Your task to perform on an android device: Open Chrome and go to the settings page Image 0: 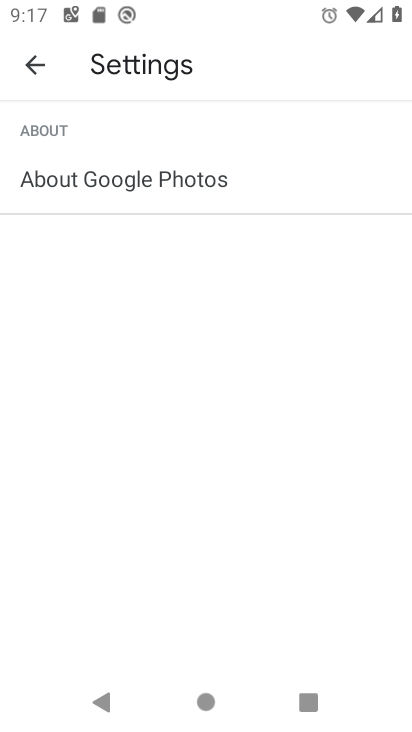
Step 0: press home button
Your task to perform on an android device: Open Chrome and go to the settings page Image 1: 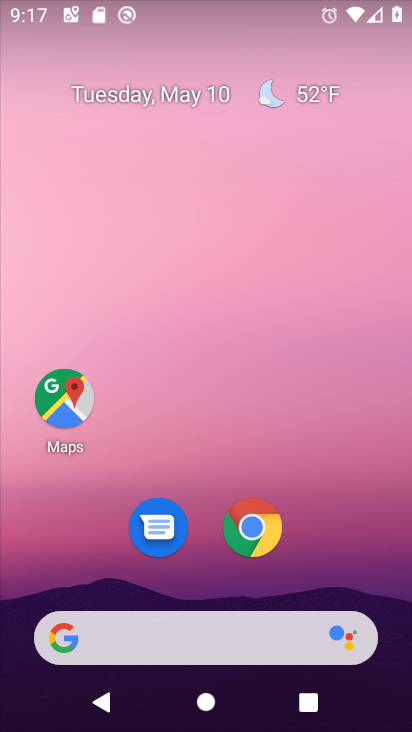
Step 1: click (261, 535)
Your task to perform on an android device: Open Chrome and go to the settings page Image 2: 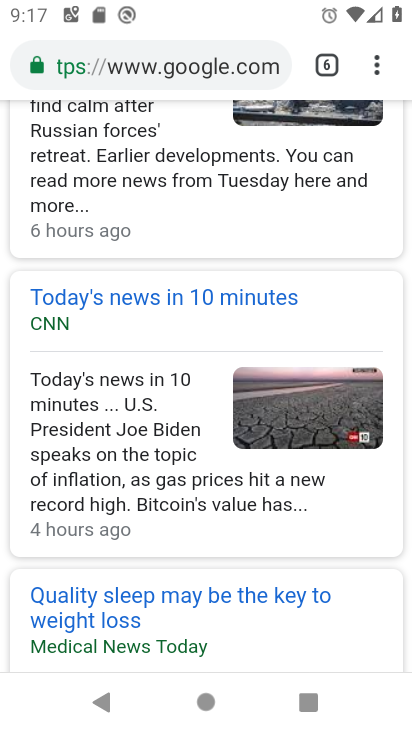
Step 2: click (372, 72)
Your task to perform on an android device: Open Chrome and go to the settings page Image 3: 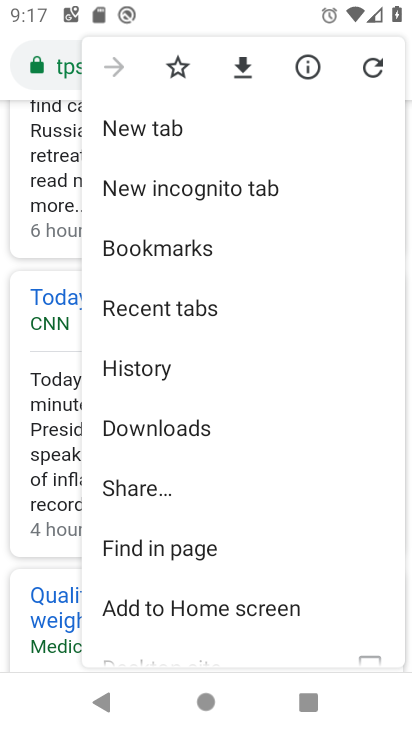
Step 3: drag from (220, 573) to (199, 258)
Your task to perform on an android device: Open Chrome and go to the settings page Image 4: 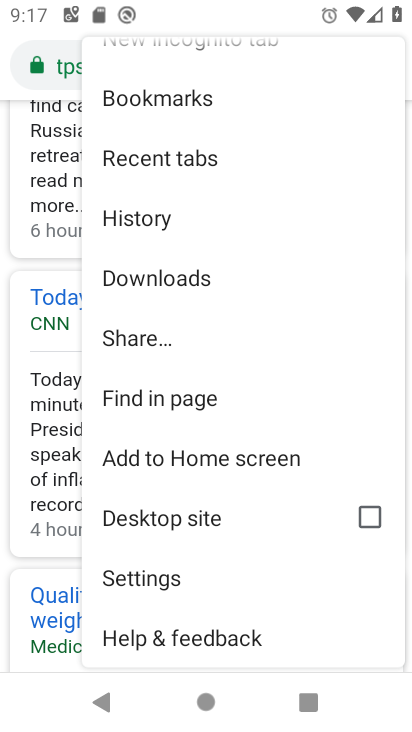
Step 4: click (166, 578)
Your task to perform on an android device: Open Chrome and go to the settings page Image 5: 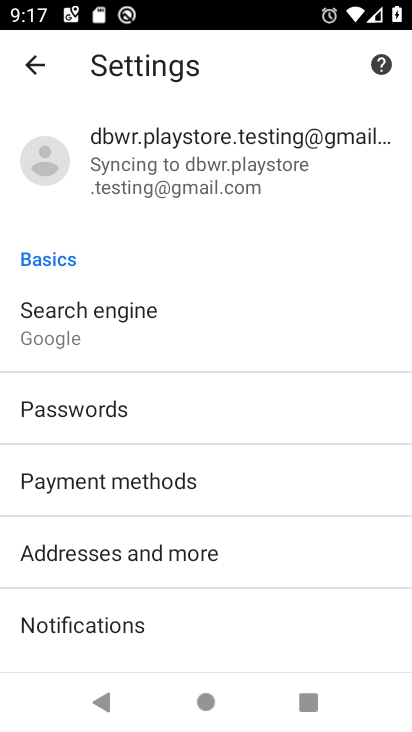
Step 5: task complete